Your task to perform on an android device: turn on sleep mode Image 0: 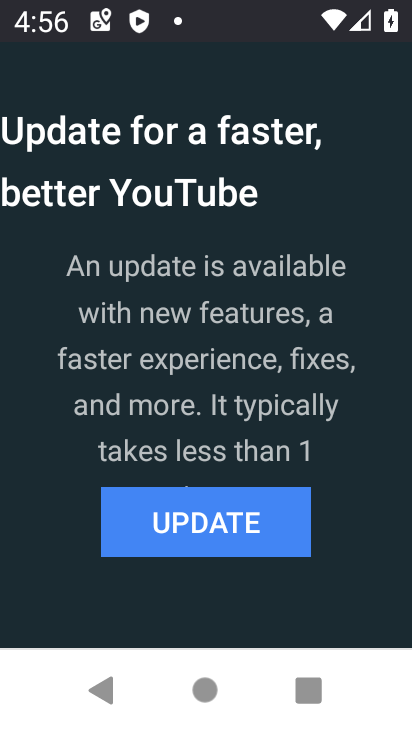
Step 0: press home button
Your task to perform on an android device: turn on sleep mode Image 1: 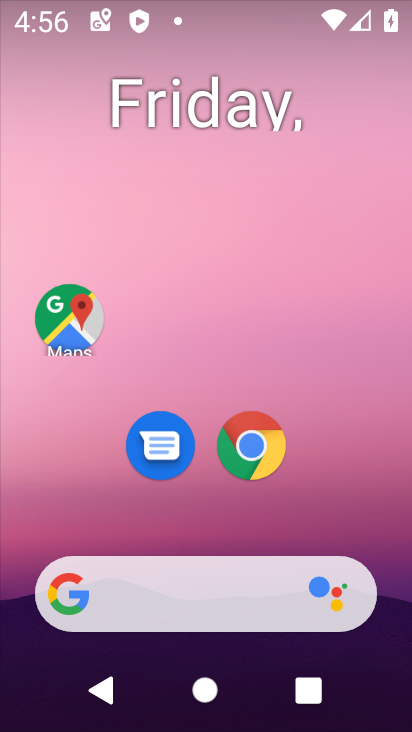
Step 1: drag from (344, 532) to (357, 63)
Your task to perform on an android device: turn on sleep mode Image 2: 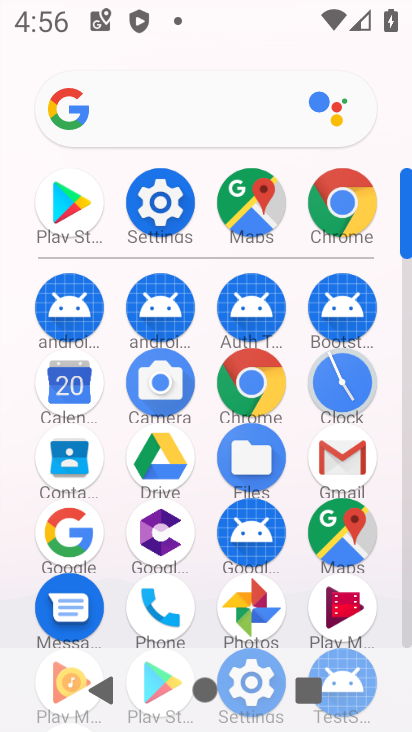
Step 2: click (410, 609)
Your task to perform on an android device: turn on sleep mode Image 3: 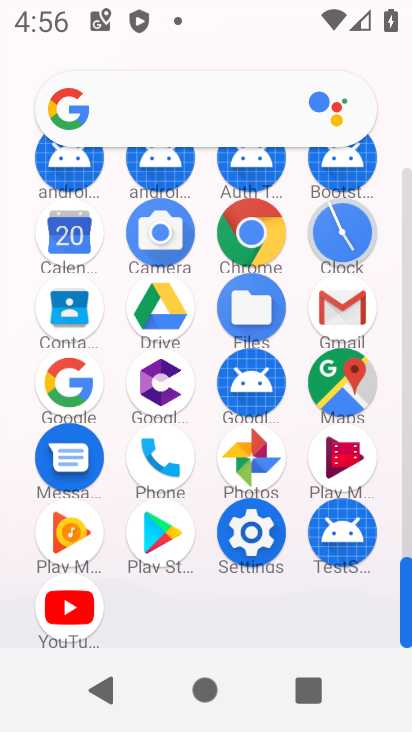
Step 3: click (236, 527)
Your task to perform on an android device: turn on sleep mode Image 4: 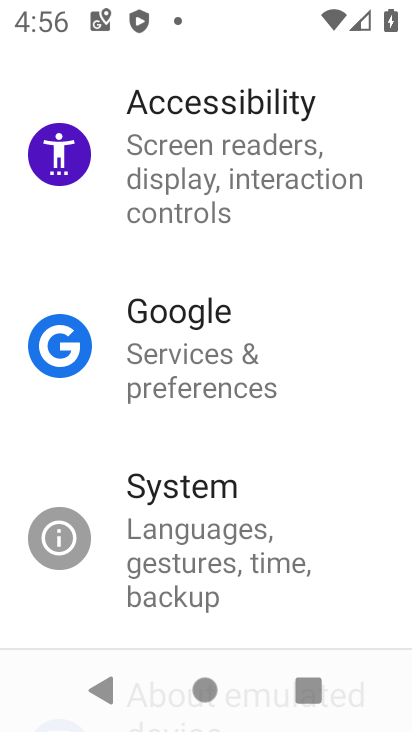
Step 4: drag from (223, 294) to (259, 693)
Your task to perform on an android device: turn on sleep mode Image 5: 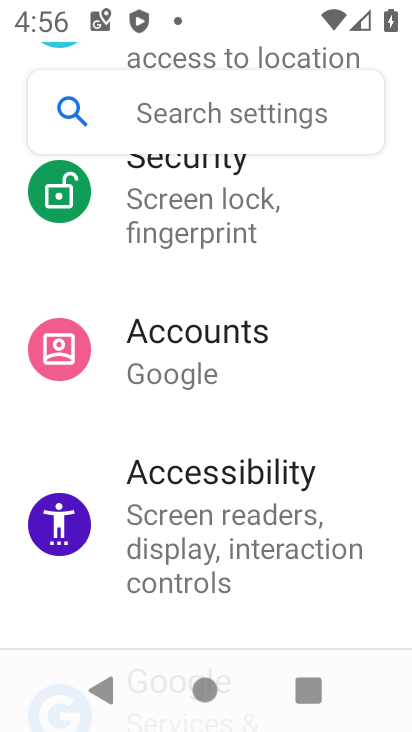
Step 5: drag from (258, 356) to (271, 673)
Your task to perform on an android device: turn on sleep mode Image 6: 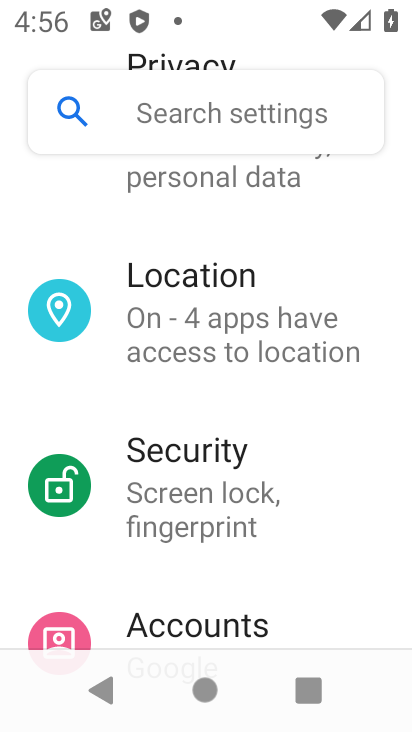
Step 6: drag from (259, 346) to (290, 719)
Your task to perform on an android device: turn on sleep mode Image 7: 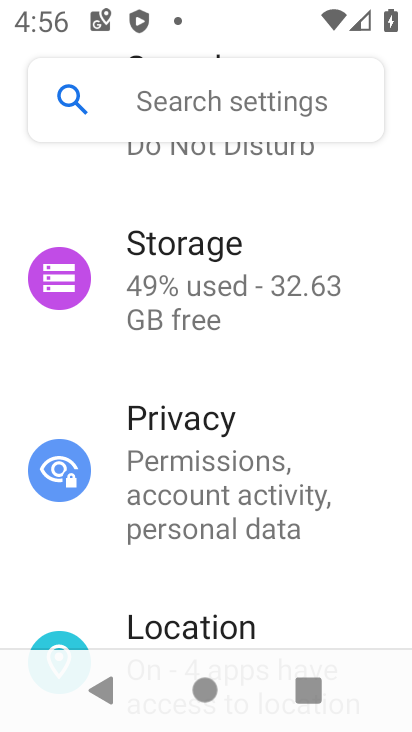
Step 7: drag from (248, 275) to (258, 673)
Your task to perform on an android device: turn on sleep mode Image 8: 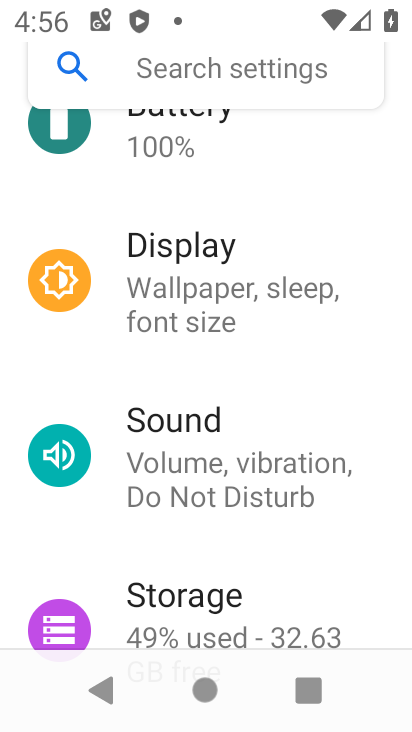
Step 8: click (219, 298)
Your task to perform on an android device: turn on sleep mode Image 9: 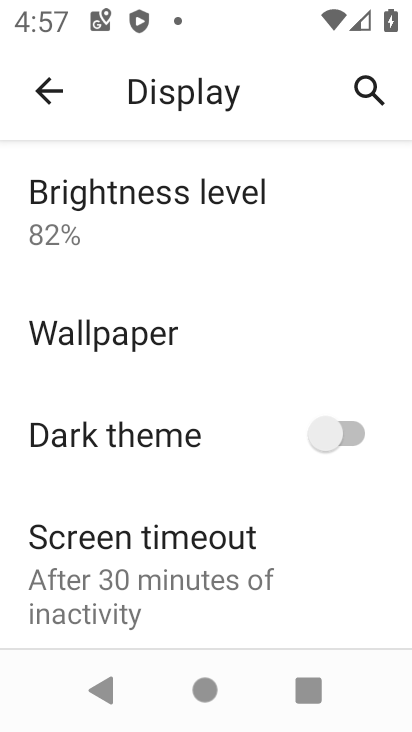
Step 9: click (216, 569)
Your task to perform on an android device: turn on sleep mode Image 10: 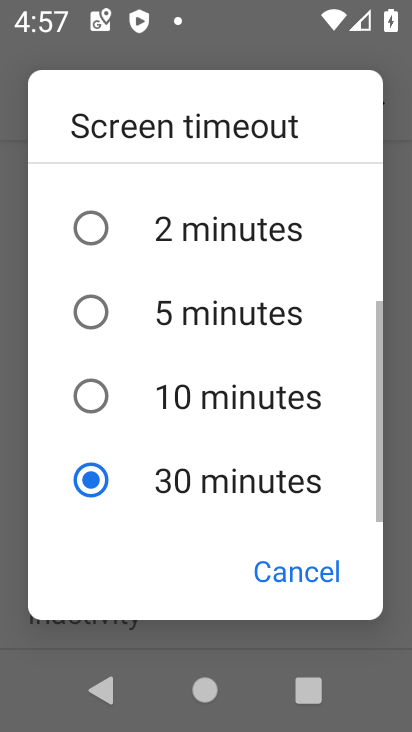
Step 10: click (196, 349)
Your task to perform on an android device: turn on sleep mode Image 11: 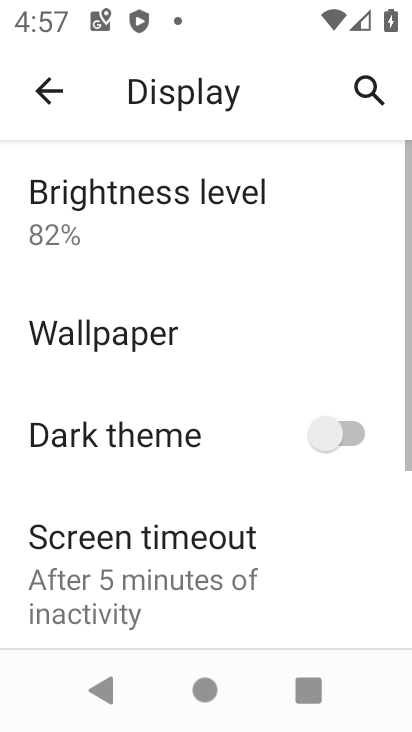
Step 11: task complete